Your task to perform on an android device: Go to location settings Image 0: 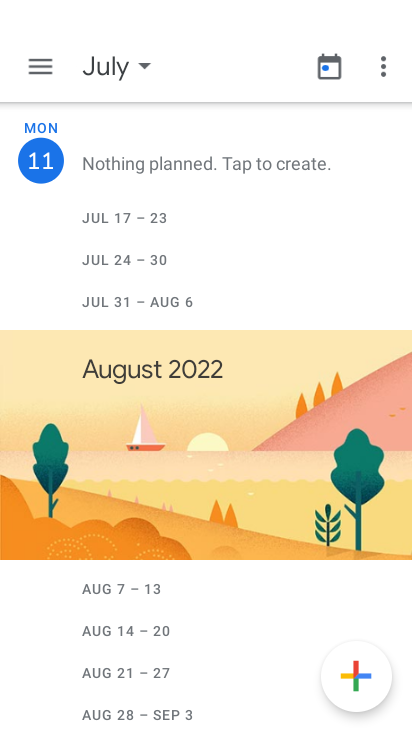
Step 0: press home button
Your task to perform on an android device: Go to location settings Image 1: 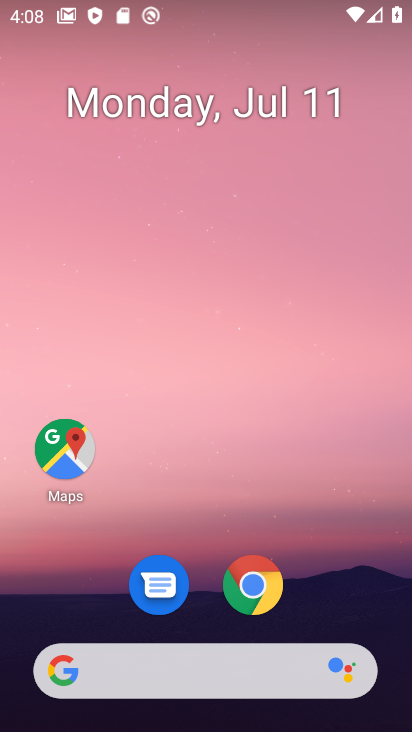
Step 1: drag from (309, 601) to (362, 30)
Your task to perform on an android device: Go to location settings Image 2: 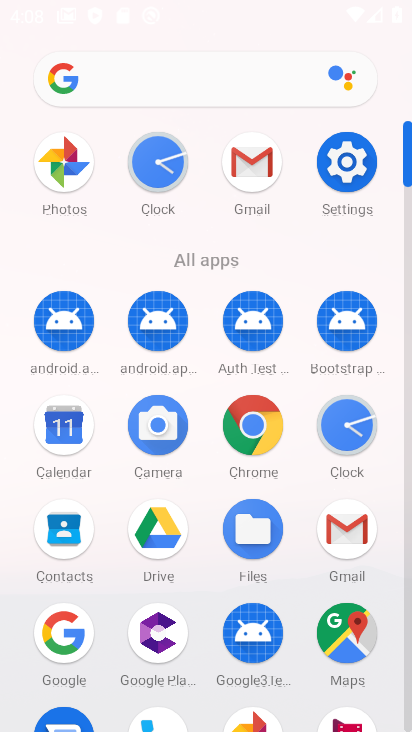
Step 2: click (357, 187)
Your task to perform on an android device: Go to location settings Image 3: 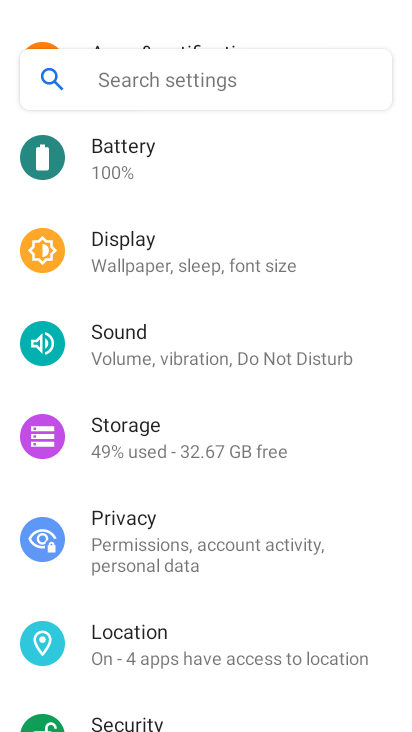
Step 3: click (207, 655)
Your task to perform on an android device: Go to location settings Image 4: 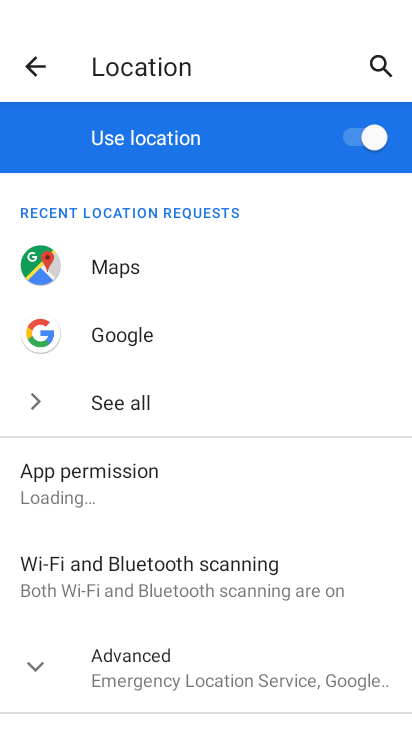
Step 4: task complete